Your task to perform on an android device: turn off wifi Image 0: 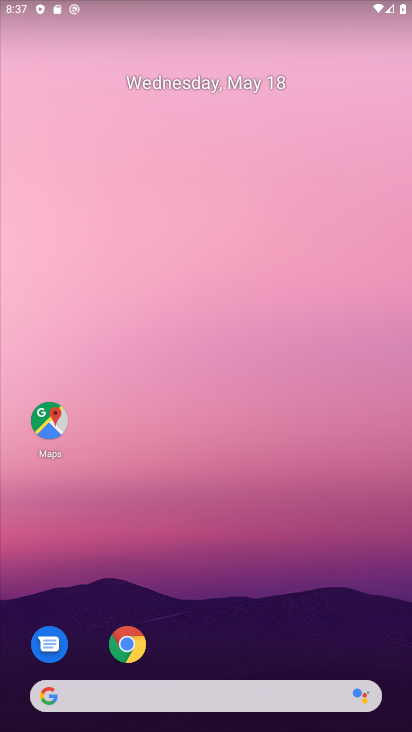
Step 0: drag from (193, 484) to (266, 39)
Your task to perform on an android device: turn off wifi Image 1: 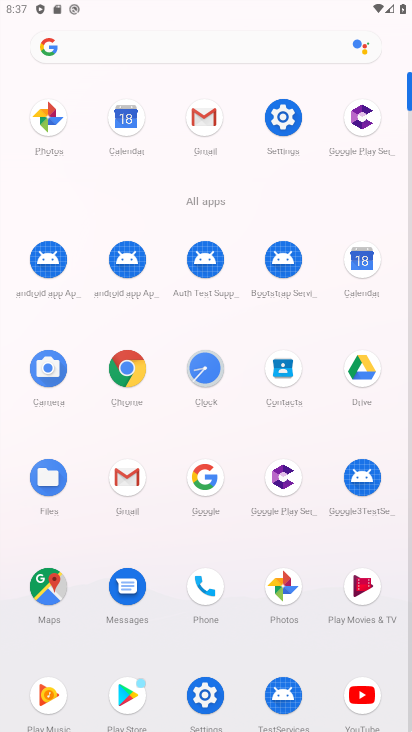
Step 1: click (281, 124)
Your task to perform on an android device: turn off wifi Image 2: 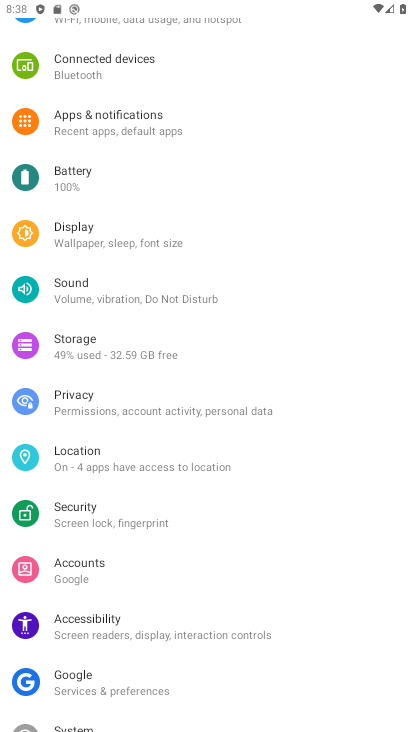
Step 2: drag from (186, 85) to (198, 577)
Your task to perform on an android device: turn off wifi Image 3: 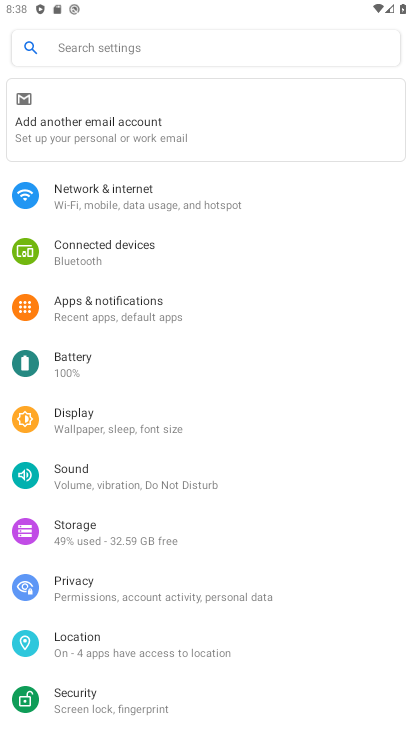
Step 3: click (177, 200)
Your task to perform on an android device: turn off wifi Image 4: 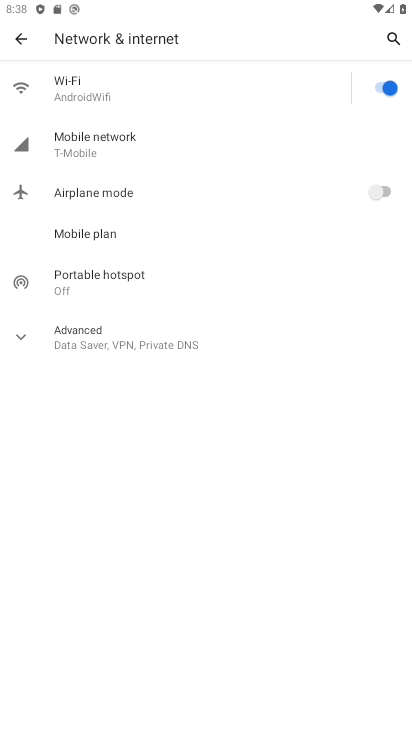
Step 4: click (388, 80)
Your task to perform on an android device: turn off wifi Image 5: 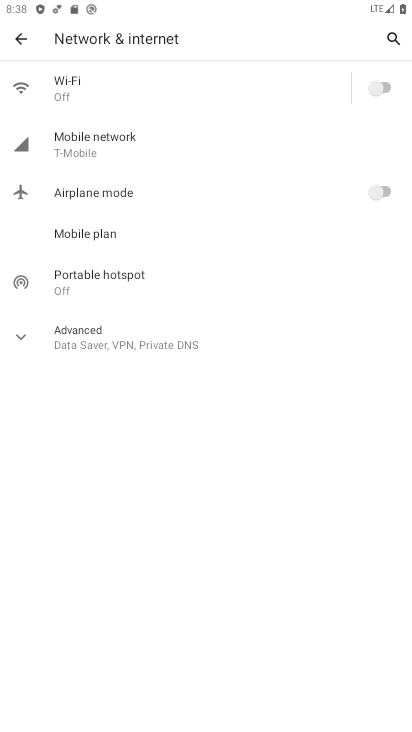
Step 5: task complete